Your task to perform on an android device: Show the shopping cart on costco.com. Image 0: 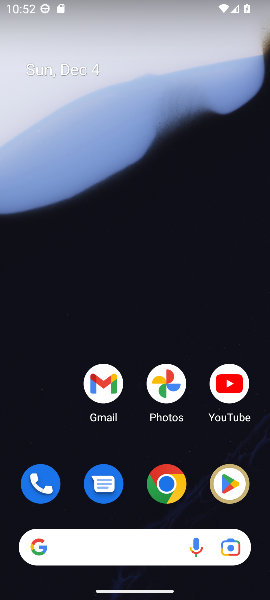
Step 0: click (169, 490)
Your task to perform on an android device: Show the shopping cart on costco.com. Image 1: 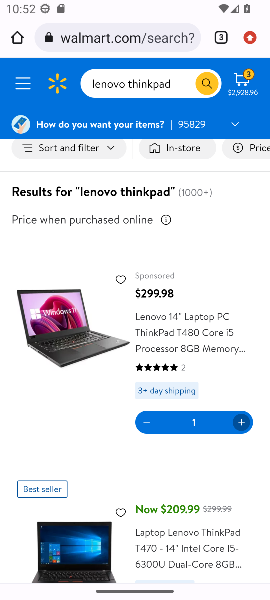
Step 1: click (87, 40)
Your task to perform on an android device: Show the shopping cart on costco.com. Image 2: 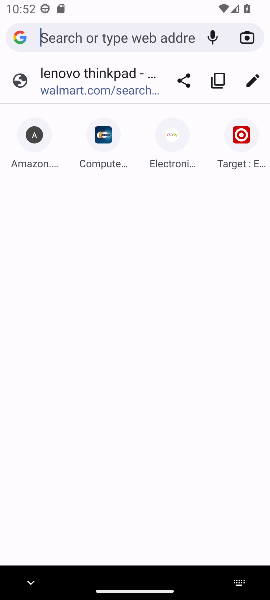
Step 2: type "costco.com"
Your task to perform on an android device: Show the shopping cart on costco.com. Image 3: 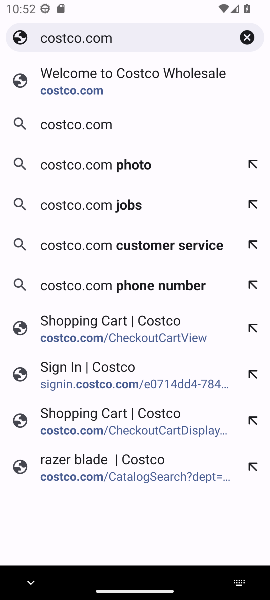
Step 3: click (53, 85)
Your task to perform on an android device: Show the shopping cart on costco.com. Image 4: 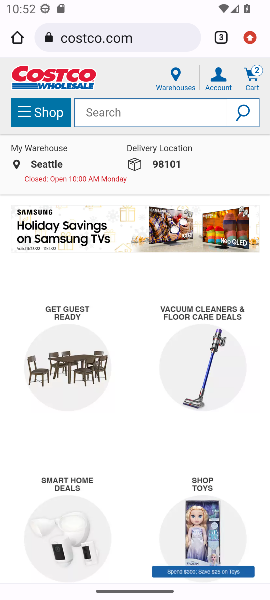
Step 4: click (256, 82)
Your task to perform on an android device: Show the shopping cart on costco.com. Image 5: 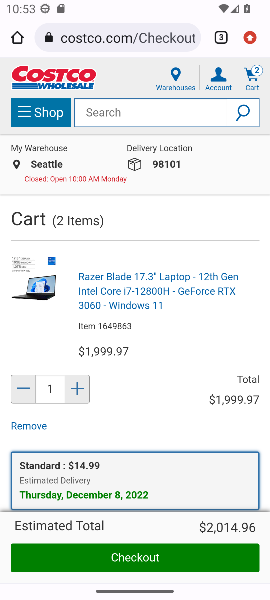
Step 5: task complete